Your task to perform on an android device: open a bookmark in the chrome app Image 0: 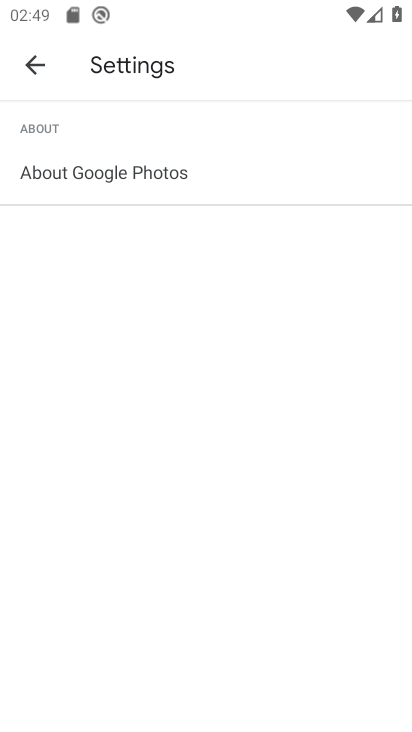
Step 0: press home button
Your task to perform on an android device: open a bookmark in the chrome app Image 1: 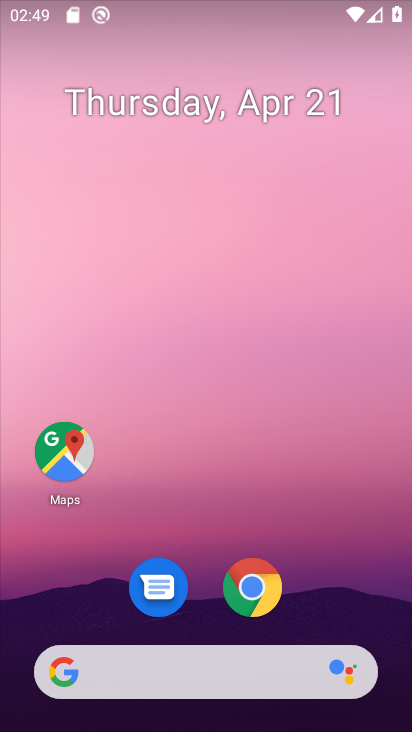
Step 1: drag from (347, 603) to (350, 93)
Your task to perform on an android device: open a bookmark in the chrome app Image 2: 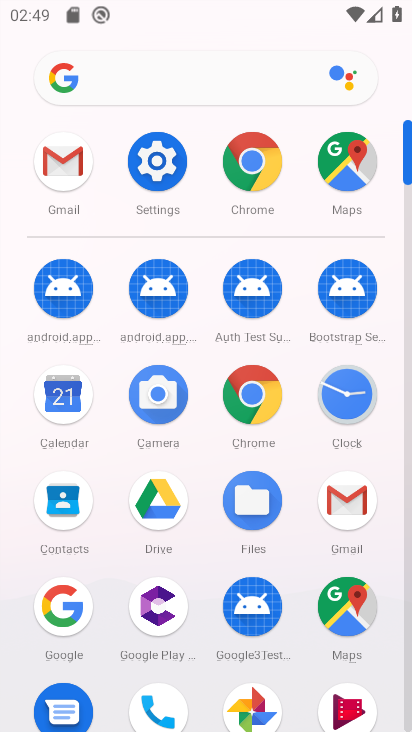
Step 2: click (248, 415)
Your task to perform on an android device: open a bookmark in the chrome app Image 3: 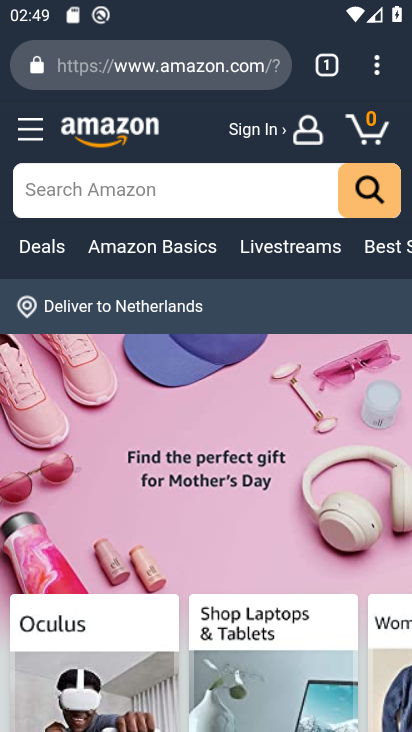
Step 3: click (378, 64)
Your task to perform on an android device: open a bookmark in the chrome app Image 4: 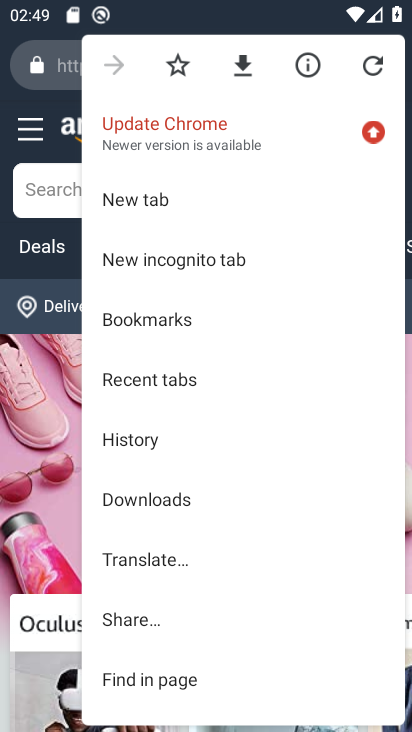
Step 4: drag from (356, 544) to (358, 406)
Your task to perform on an android device: open a bookmark in the chrome app Image 5: 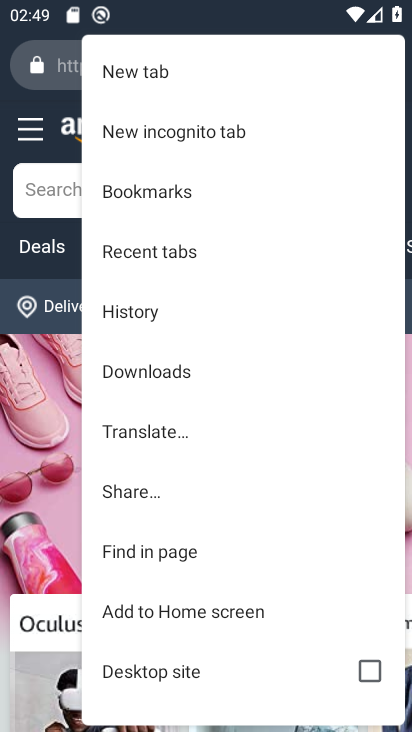
Step 5: drag from (314, 601) to (320, 376)
Your task to perform on an android device: open a bookmark in the chrome app Image 6: 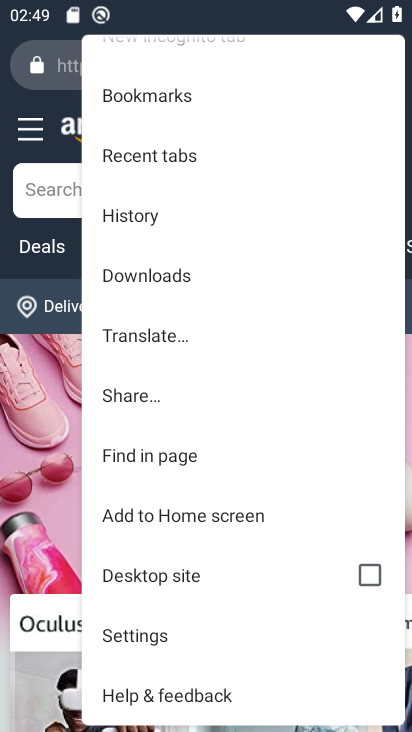
Step 6: drag from (327, 345) to (308, 507)
Your task to perform on an android device: open a bookmark in the chrome app Image 7: 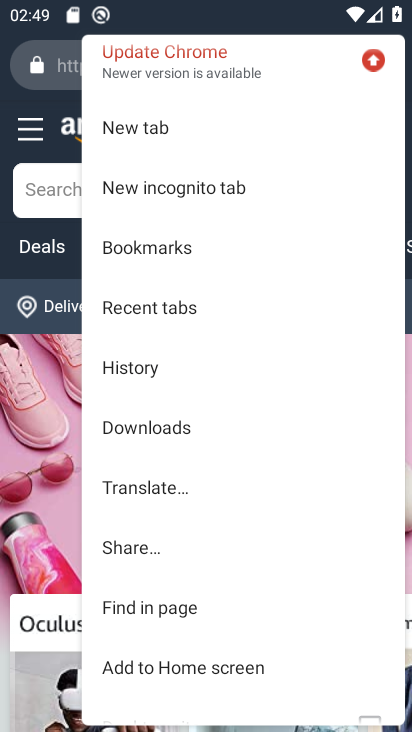
Step 7: drag from (317, 353) to (319, 502)
Your task to perform on an android device: open a bookmark in the chrome app Image 8: 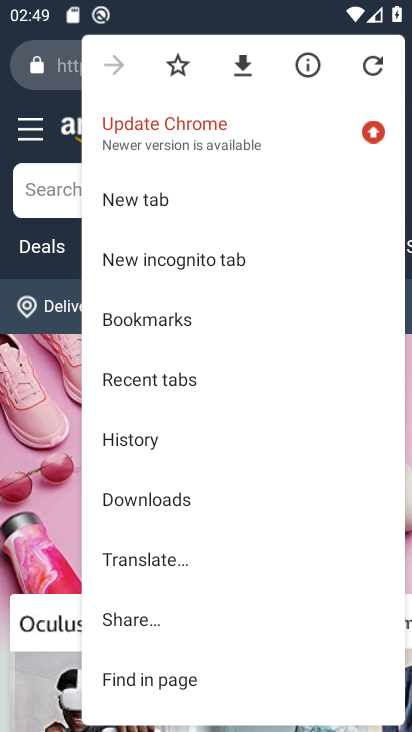
Step 8: drag from (321, 347) to (306, 471)
Your task to perform on an android device: open a bookmark in the chrome app Image 9: 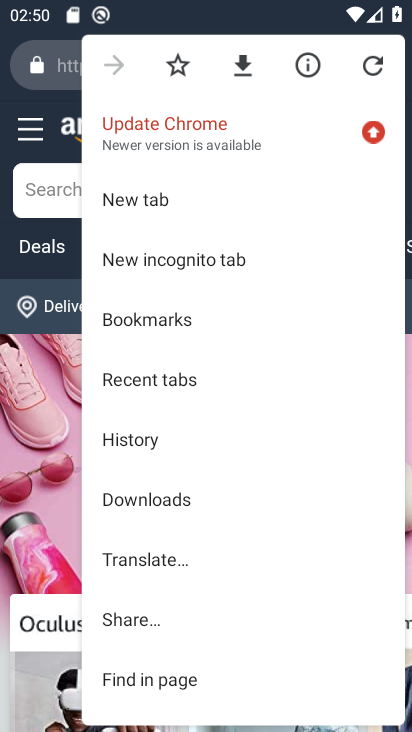
Step 9: click (193, 323)
Your task to perform on an android device: open a bookmark in the chrome app Image 10: 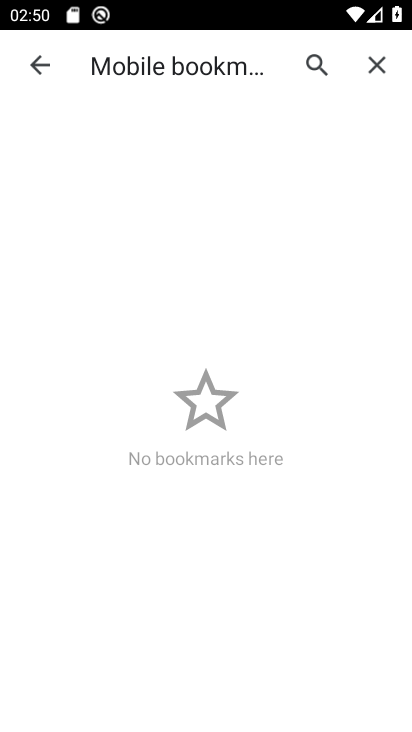
Step 10: task complete